Your task to perform on an android device: toggle sleep mode Image 0: 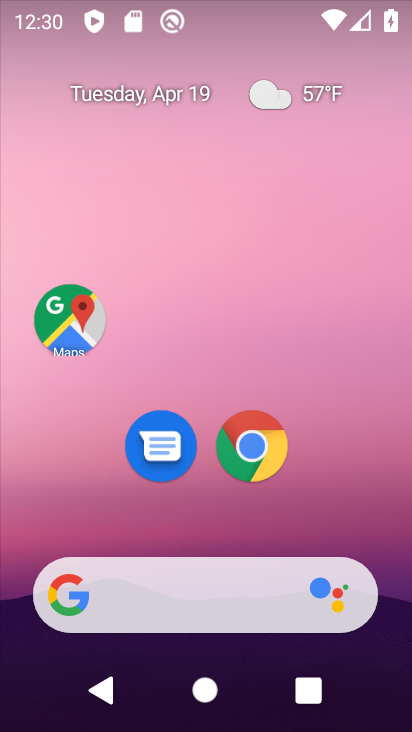
Step 0: drag from (344, 488) to (351, 73)
Your task to perform on an android device: toggle sleep mode Image 1: 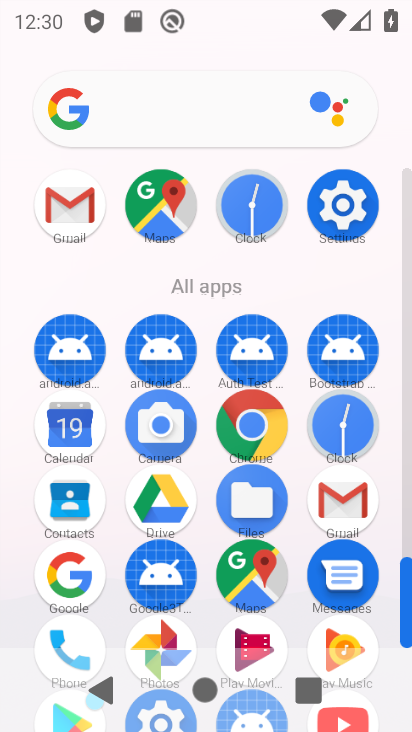
Step 1: click (350, 211)
Your task to perform on an android device: toggle sleep mode Image 2: 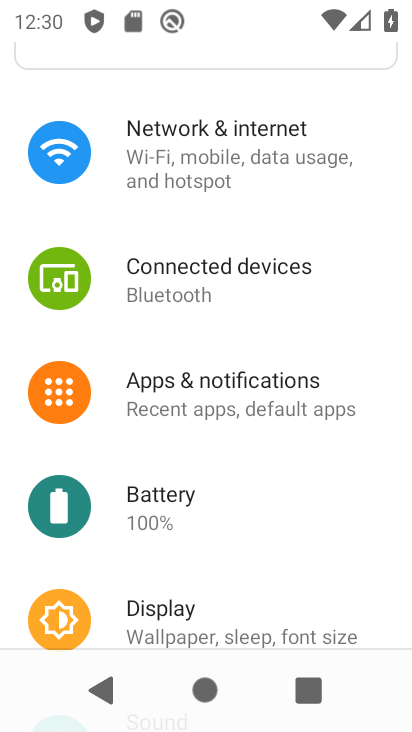
Step 2: drag from (309, 514) to (359, 172)
Your task to perform on an android device: toggle sleep mode Image 3: 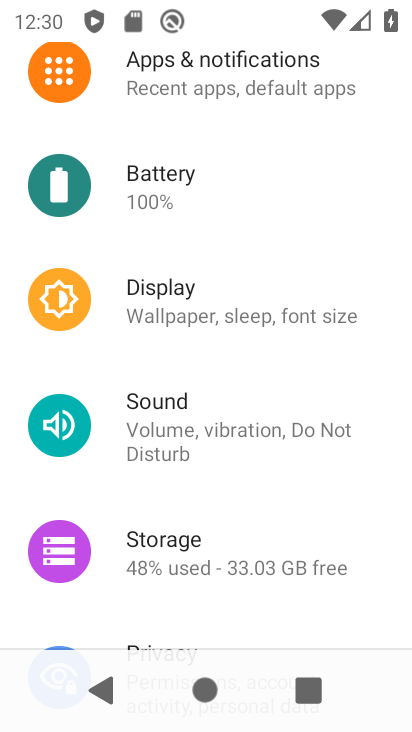
Step 3: click (281, 306)
Your task to perform on an android device: toggle sleep mode Image 4: 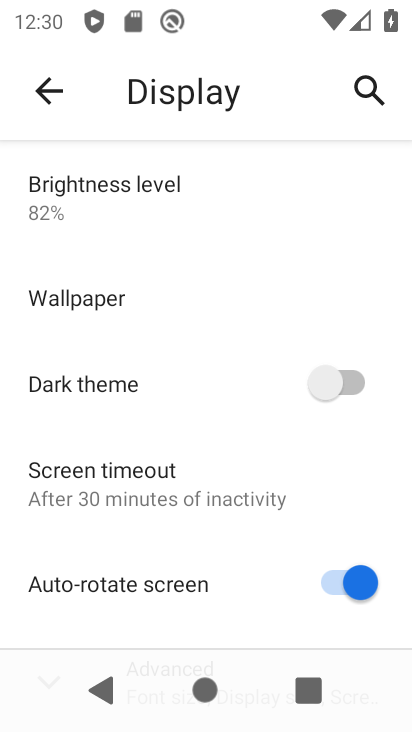
Step 4: drag from (201, 505) to (230, 212)
Your task to perform on an android device: toggle sleep mode Image 5: 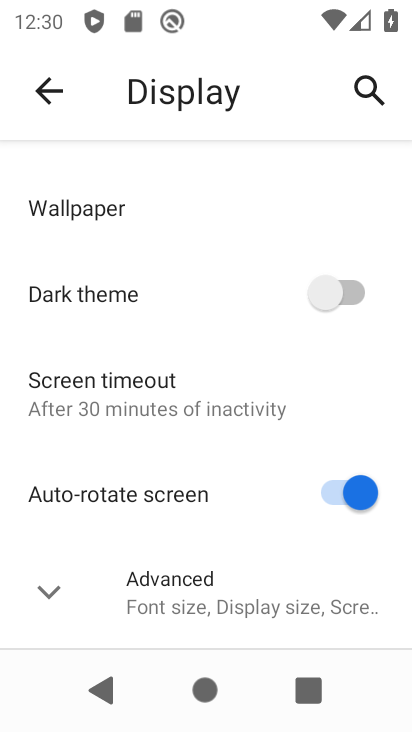
Step 5: click (52, 587)
Your task to perform on an android device: toggle sleep mode Image 6: 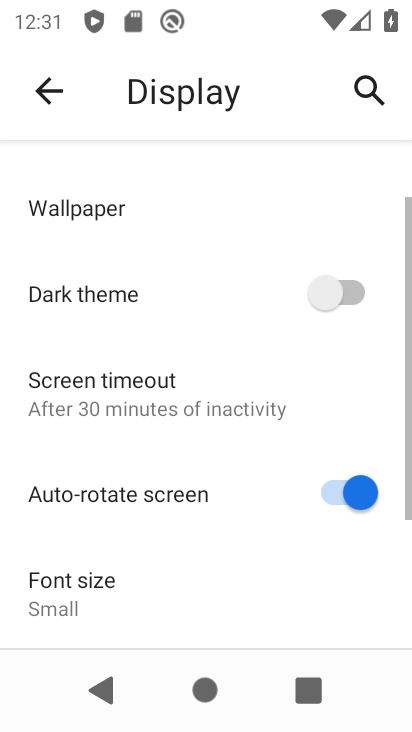
Step 6: task complete